Your task to perform on an android device: Open sound settings Image 0: 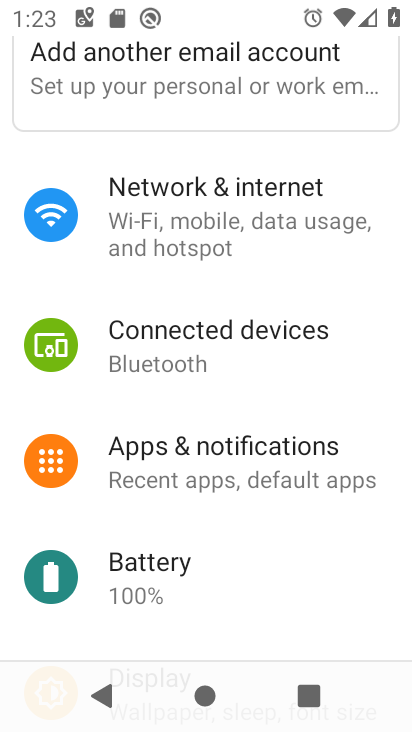
Step 0: press home button
Your task to perform on an android device: Open sound settings Image 1: 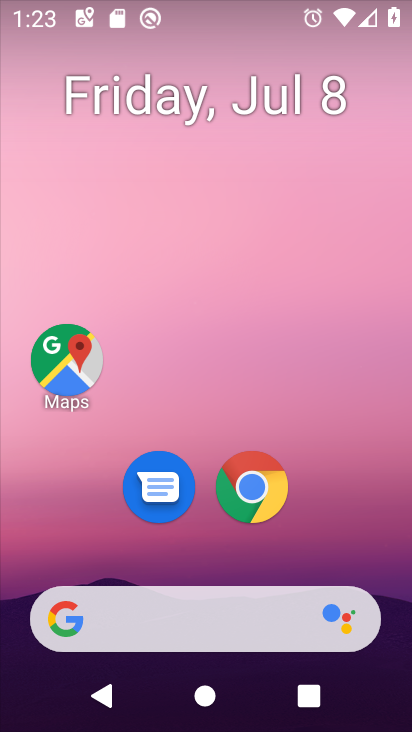
Step 1: drag from (358, 538) to (319, 155)
Your task to perform on an android device: Open sound settings Image 2: 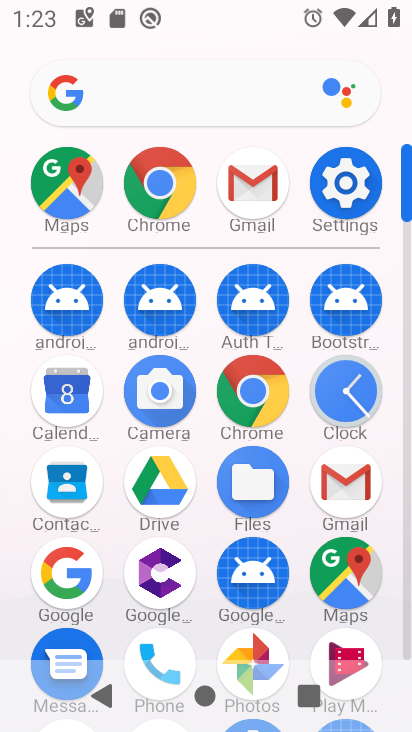
Step 2: click (347, 189)
Your task to perform on an android device: Open sound settings Image 3: 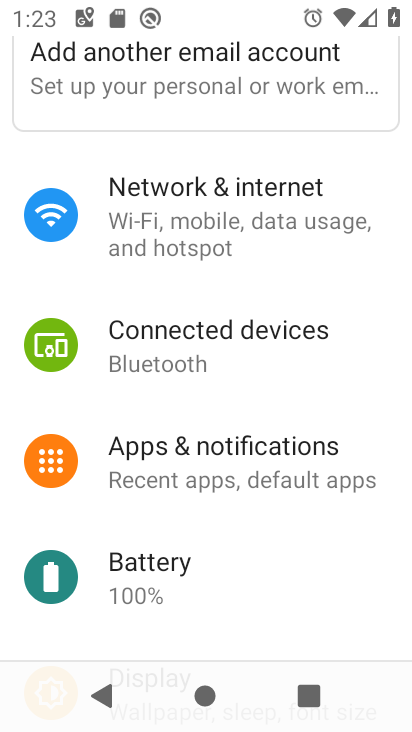
Step 3: drag from (375, 440) to (378, 334)
Your task to perform on an android device: Open sound settings Image 4: 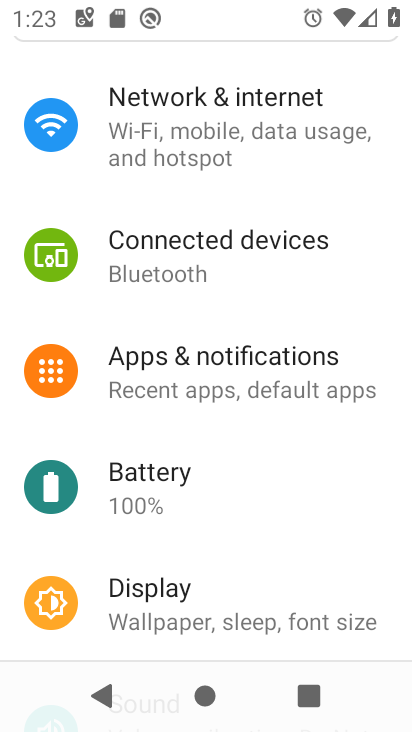
Step 4: drag from (376, 488) to (374, 368)
Your task to perform on an android device: Open sound settings Image 5: 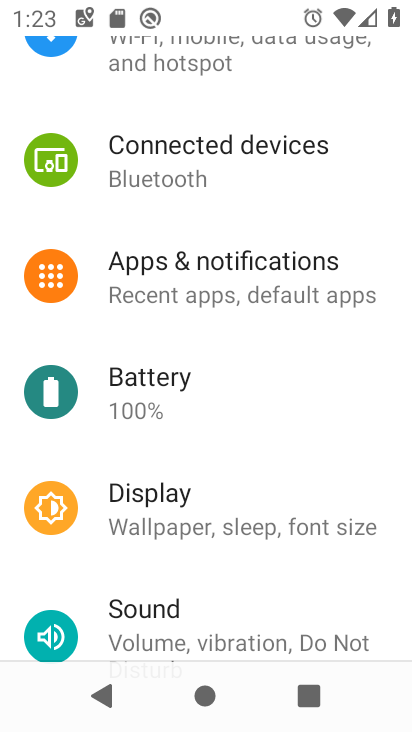
Step 5: drag from (372, 565) to (372, 404)
Your task to perform on an android device: Open sound settings Image 6: 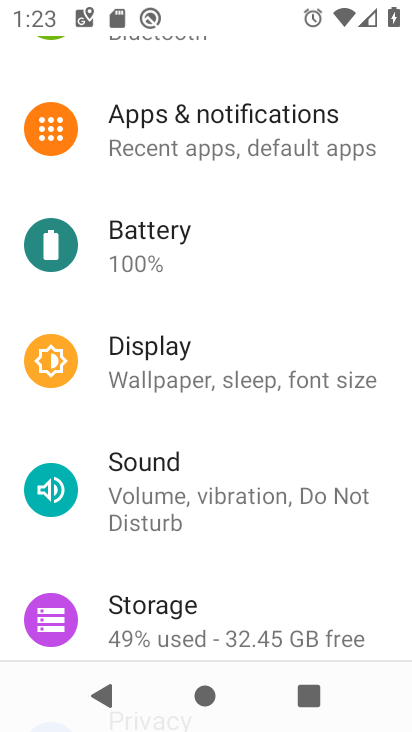
Step 6: drag from (368, 554) to (366, 441)
Your task to perform on an android device: Open sound settings Image 7: 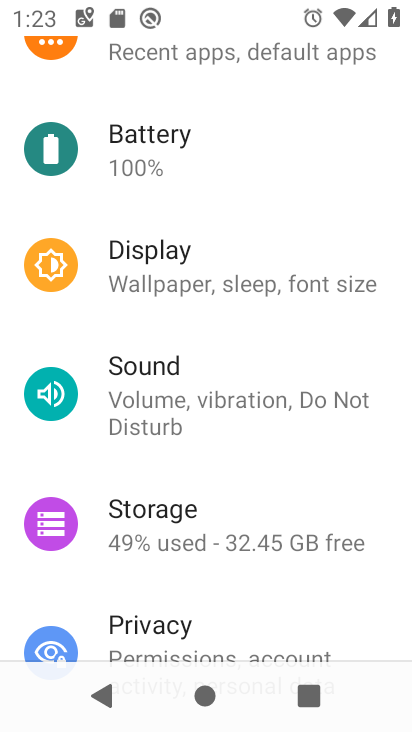
Step 7: click (364, 411)
Your task to perform on an android device: Open sound settings Image 8: 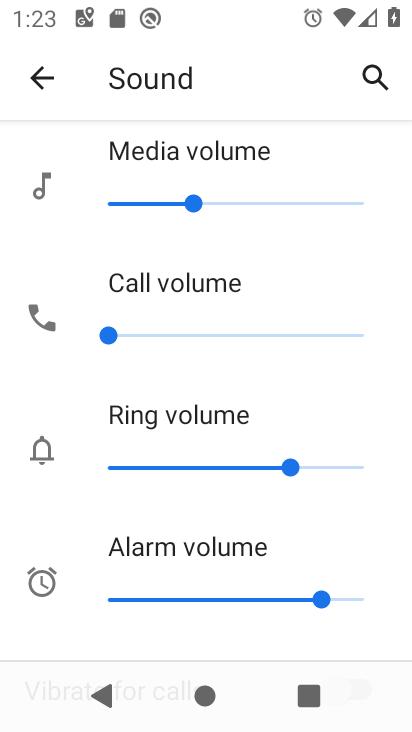
Step 8: task complete